Your task to perform on an android device: turn on bluetooth scan Image 0: 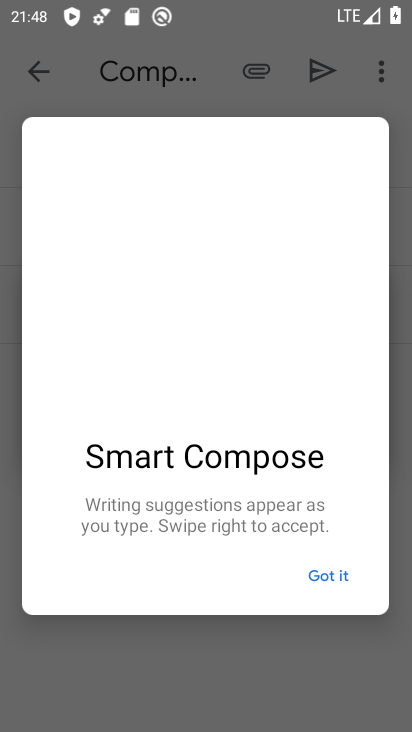
Step 0: press home button
Your task to perform on an android device: turn on bluetooth scan Image 1: 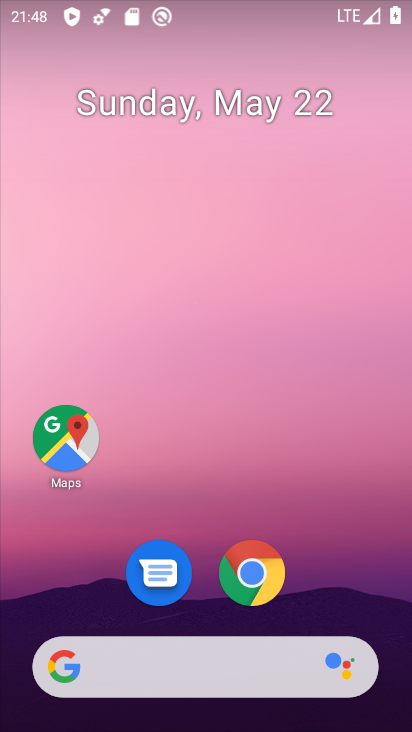
Step 1: drag from (339, 246) to (339, 3)
Your task to perform on an android device: turn on bluetooth scan Image 2: 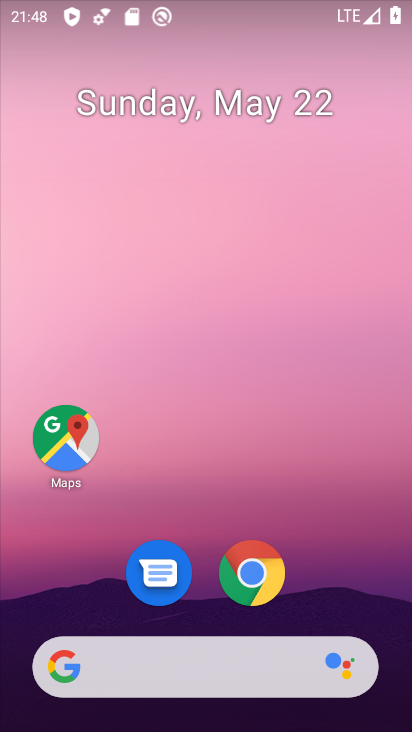
Step 2: drag from (379, 569) to (283, 15)
Your task to perform on an android device: turn on bluetooth scan Image 3: 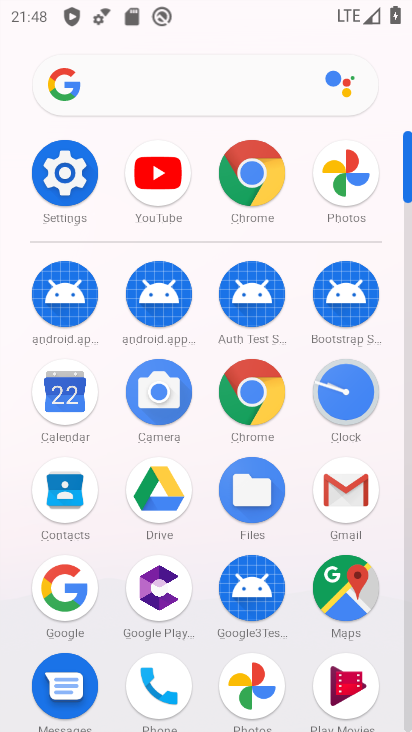
Step 3: click (66, 186)
Your task to perform on an android device: turn on bluetooth scan Image 4: 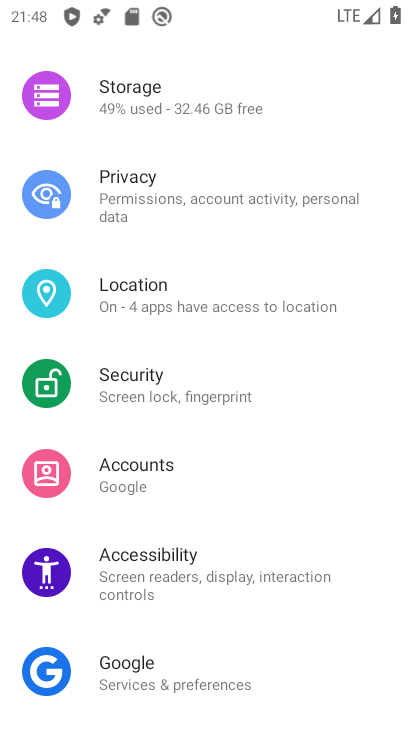
Step 4: click (121, 305)
Your task to perform on an android device: turn on bluetooth scan Image 5: 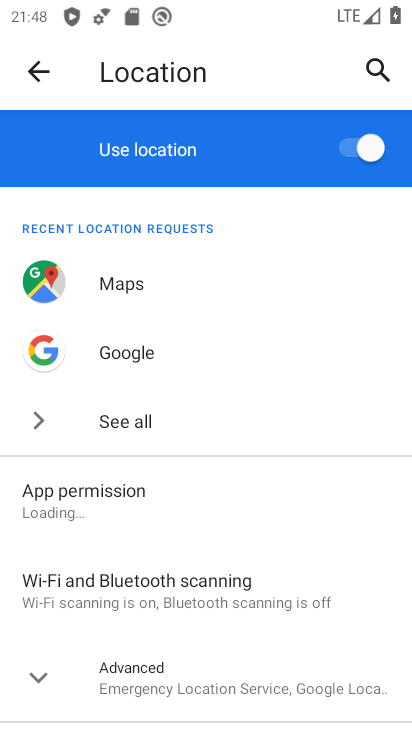
Step 5: click (117, 655)
Your task to perform on an android device: turn on bluetooth scan Image 6: 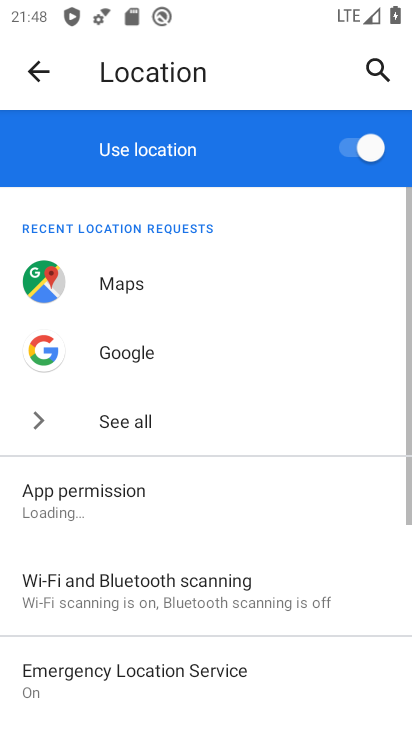
Step 6: click (152, 594)
Your task to perform on an android device: turn on bluetooth scan Image 7: 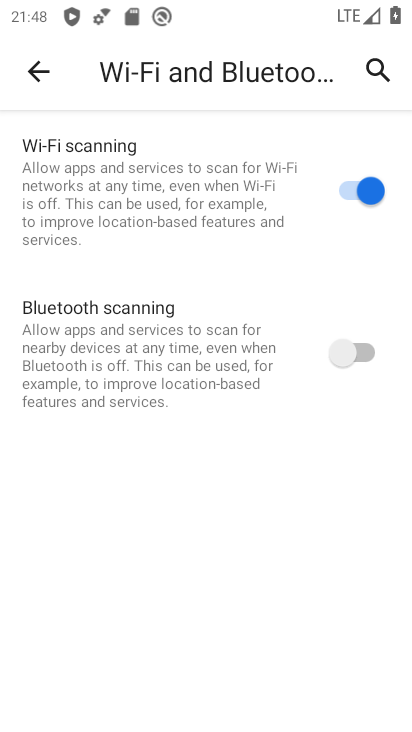
Step 7: click (344, 361)
Your task to perform on an android device: turn on bluetooth scan Image 8: 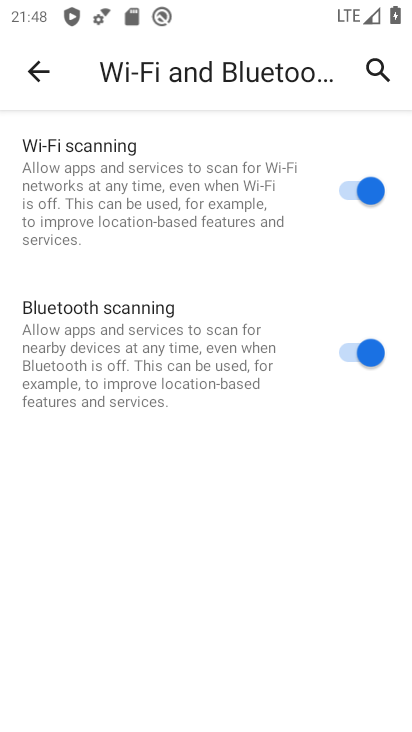
Step 8: task complete